Your task to perform on an android device: Search for sushi restaurants on Maps Image 0: 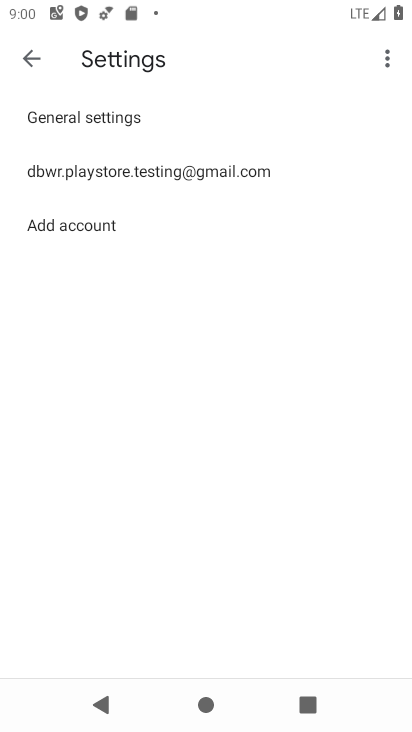
Step 0: press home button
Your task to perform on an android device: Search for sushi restaurants on Maps Image 1: 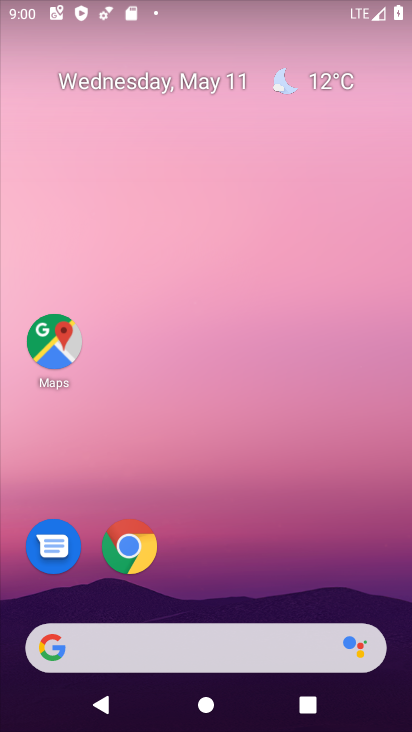
Step 1: click (50, 346)
Your task to perform on an android device: Search for sushi restaurants on Maps Image 2: 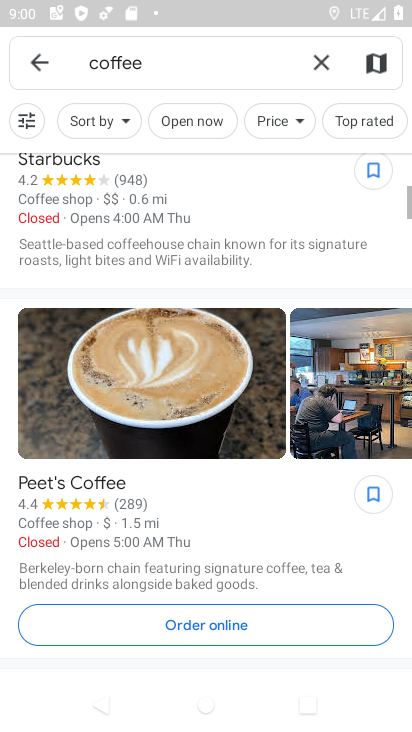
Step 2: click (318, 58)
Your task to perform on an android device: Search for sushi restaurants on Maps Image 3: 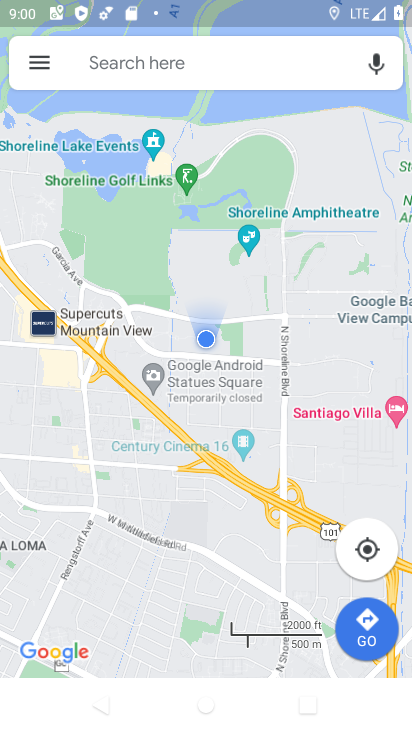
Step 3: click (153, 57)
Your task to perform on an android device: Search for sushi restaurants on Maps Image 4: 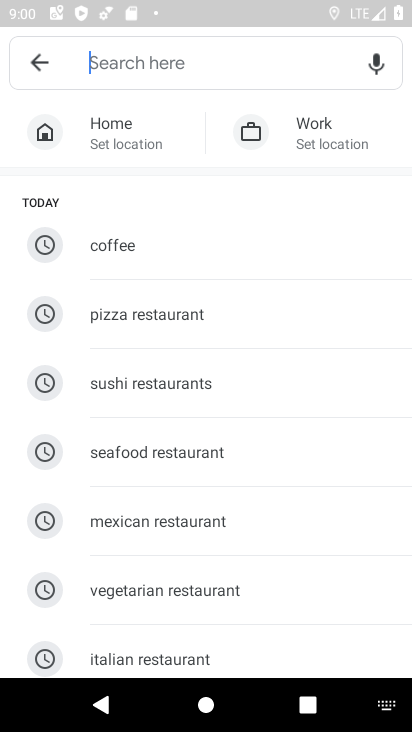
Step 4: type "sushi restaurants"
Your task to perform on an android device: Search for sushi restaurants on Maps Image 5: 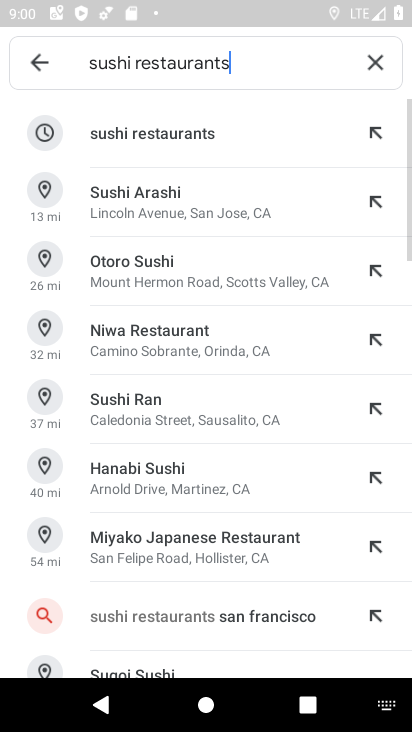
Step 5: click (136, 129)
Your task to perform on an android device: Search for sushi restaurants on Maps Image 6: 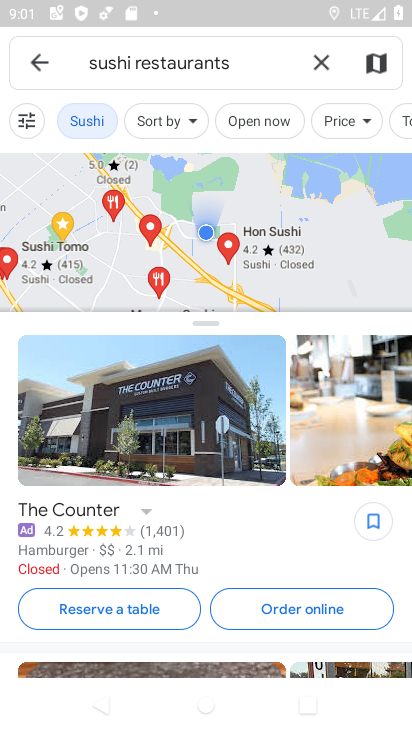
Step 6: task complete